Your task to perform on an android device: see creations saved in the google photos Image 0: 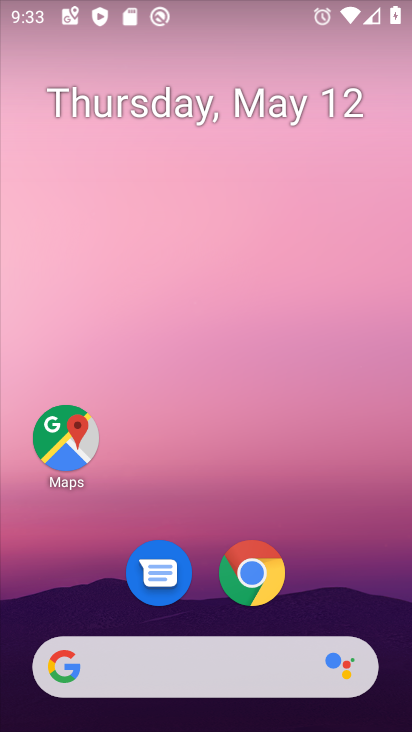
Step 0: drag from (326, 582) to (230, 113)
Your task to perform on an android device: see creations saved in the google photos Image 1: 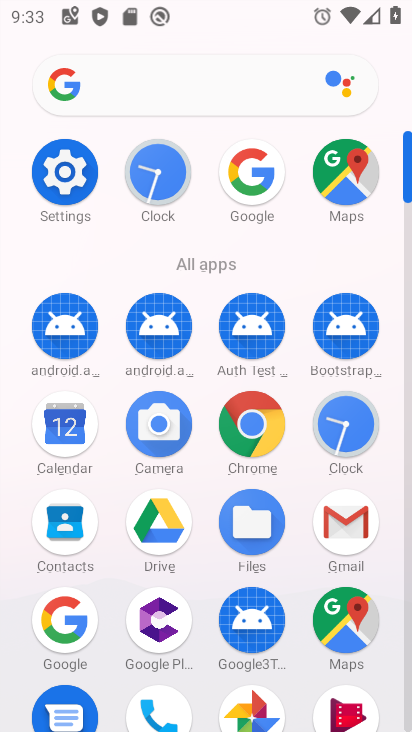
Step 1: drag from (291, 545) to (285, 232)
Your task to perform on an android device: see creations saved in the google photos Image 2: 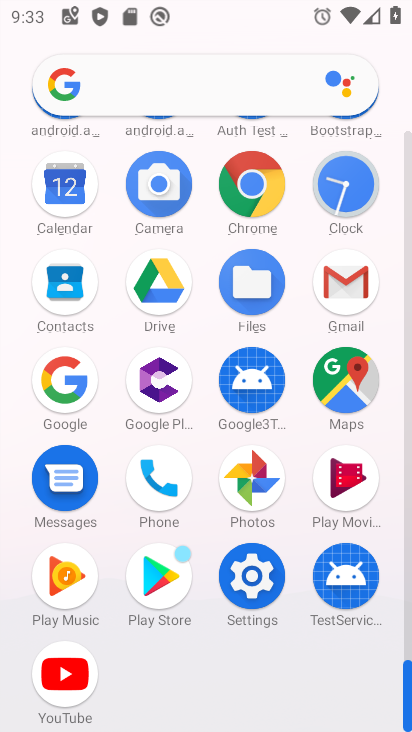
Step 2: click (252, 477)
Your task to perform on an android device: see creations saved in the google photos Image 3: 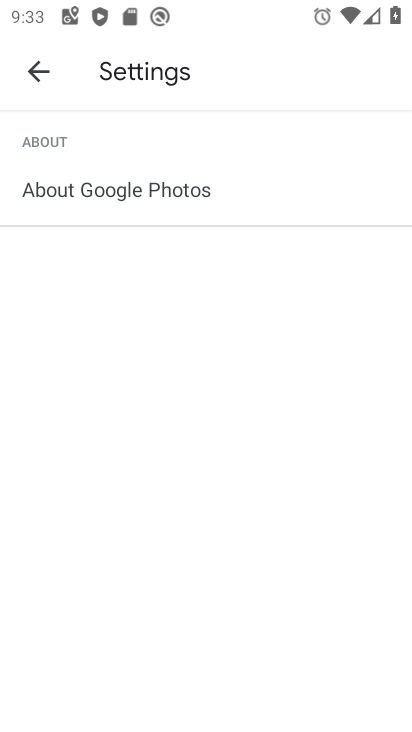
Step 3: press back button
Your task to perform on an android device: see creations saved in the google photos Image 4: 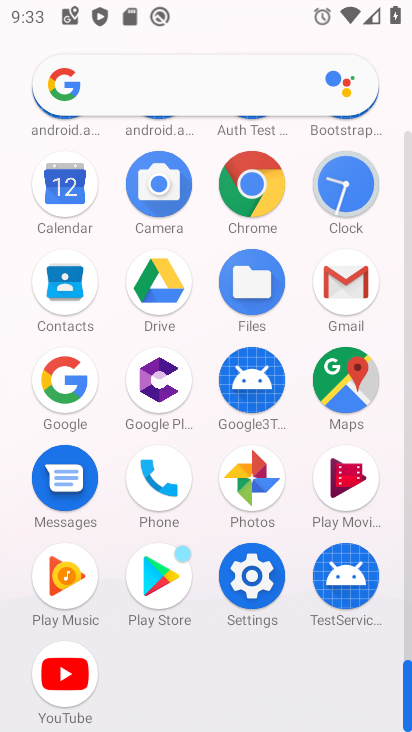
Step 4: click (253, 477)
Your task to perform on an android device: see creations saved in the google photos Image 5: 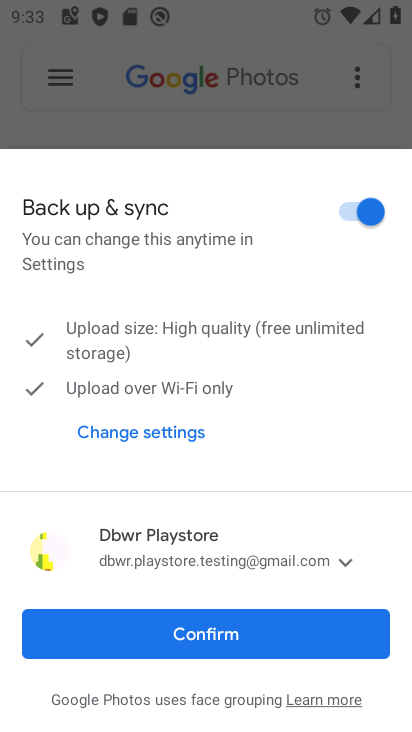
Step 5: click (286, 633)
Your task to perform on an android device: see creations saved in the google photos Image 6: 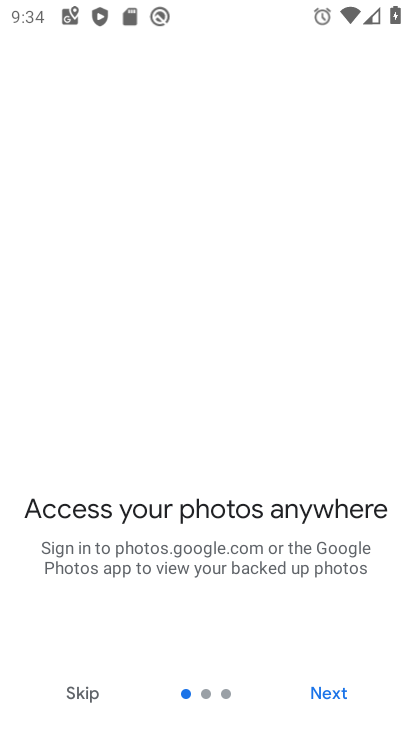
Step 6: click (323, 698)
Your task to perform on an android device: see creations saved in the google photos Image 7: 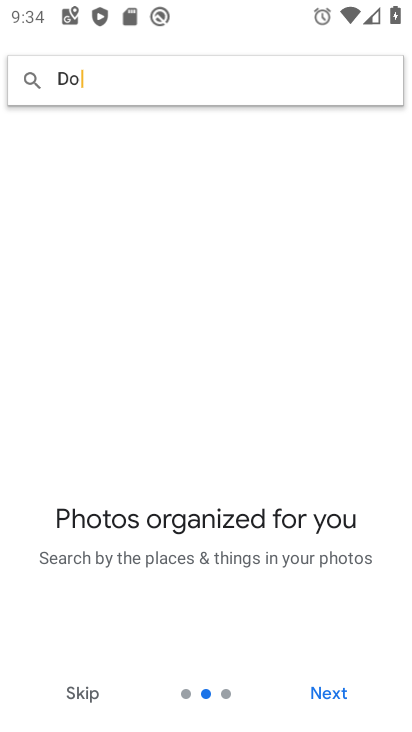
Step 7: click (323, 698)
Your task to perform on an android device: see creations saved in the google photos Image 8: 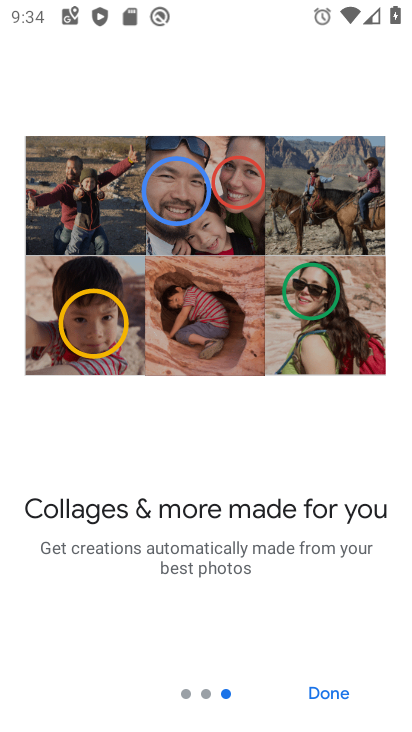
Step 8: click (323, 698)
Your task to perform on an android device: see creations saved in the google photos Image 9: 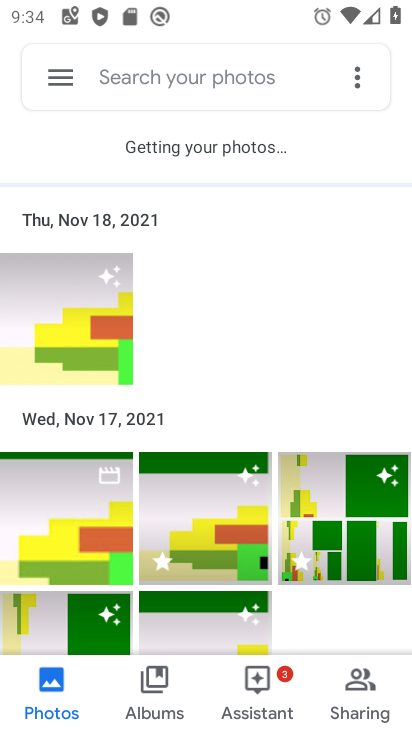
Step 9: click (140, 84)
Your task to perform on an android device: see creations saved in the google photos Image 10: 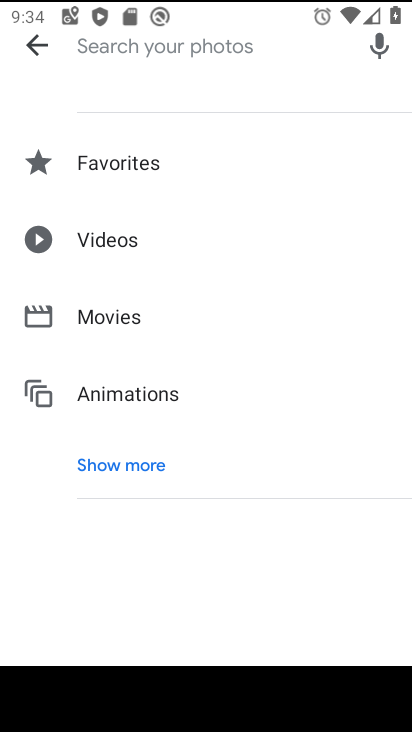
Step 10: click (147, 466)
Your task to perform on an android device: see creations saved in the google photos Image 11: 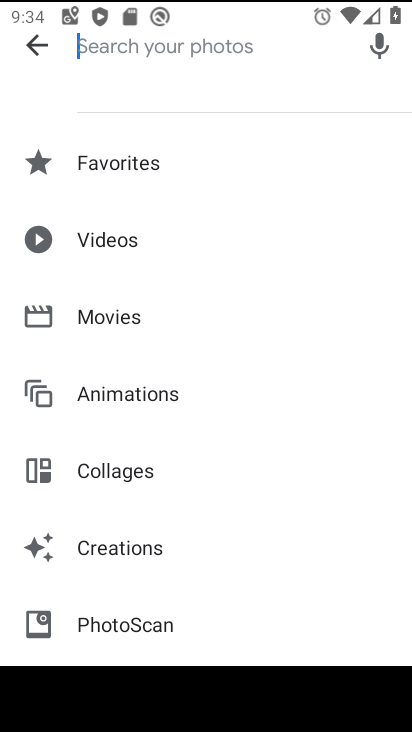
Step 11: click (122, 541)
Your task to perform on an android device: see creations saved in the google photos Image 12: 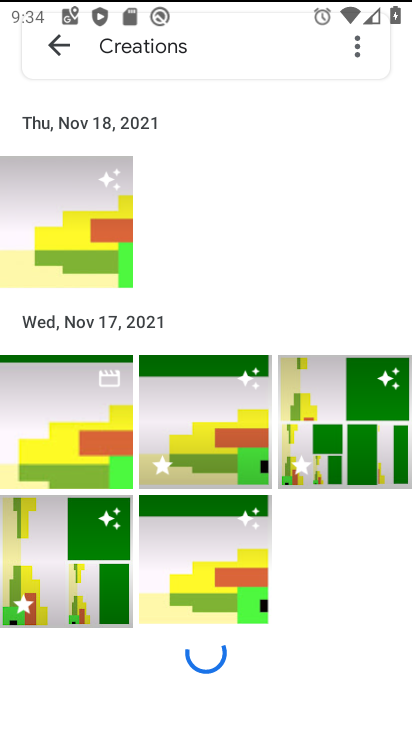
Step 12: task complete